Your task to perform on an android device: check the backup settings in the google photos Image 0: 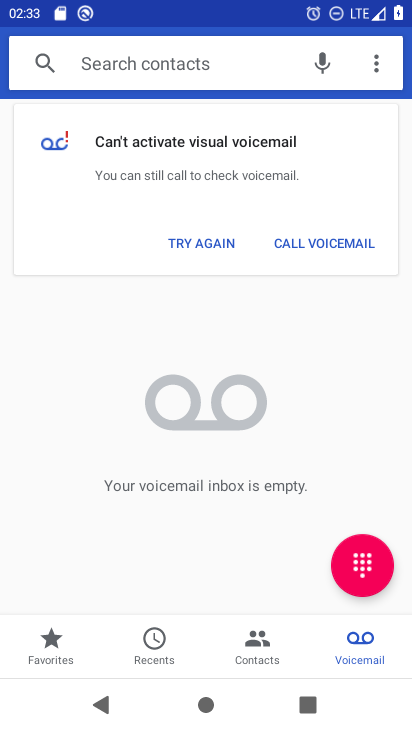
Step 0: press home button
Your task to perform on an android device: check the backup settings in the google photos Image 1: 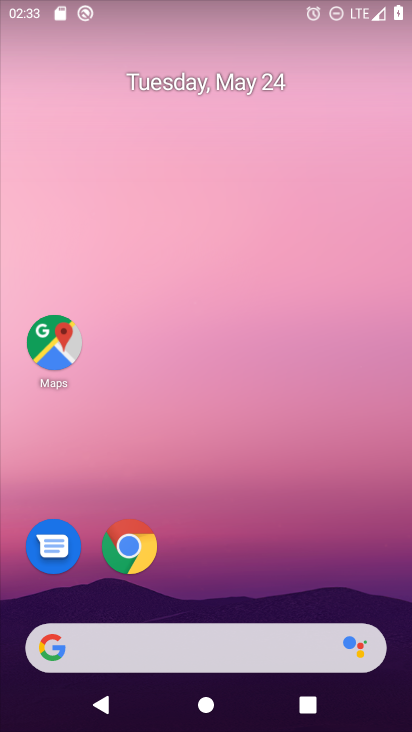
Step 1: drag from (225, 635) to (297, 56)
Your task to perform on an android device: check the backup settings in the google photos Image 2: 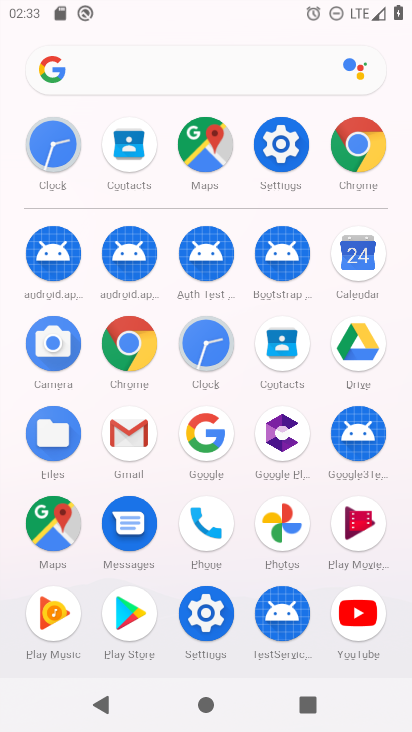
Step 2: click (286, 530)
Your task to perform on an android device: check the backup settings in the google photos Image 3: 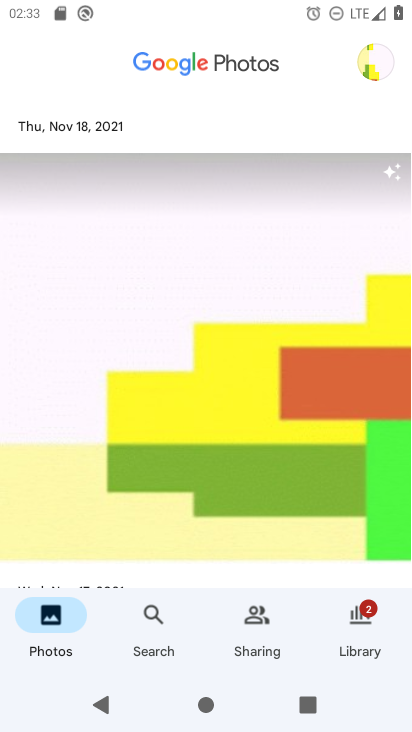
Step 3: click (384, 61)
Your task to perform on an android device: check the backup settings in the google photos Image 4: 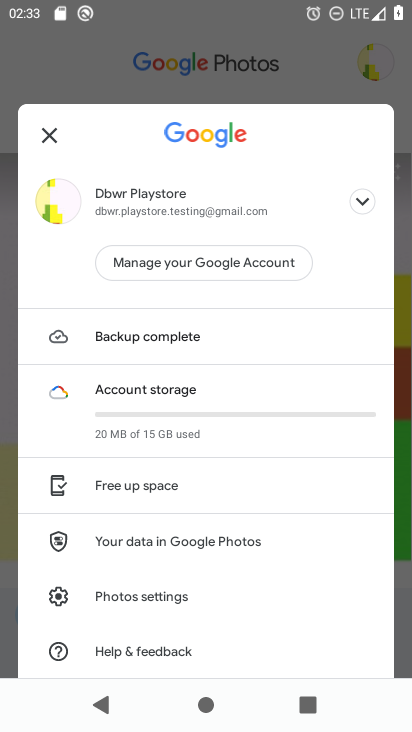
Step 4: click (167, 600)
Your task to perform on an android device: check the backup settings in the google photos Image 5: 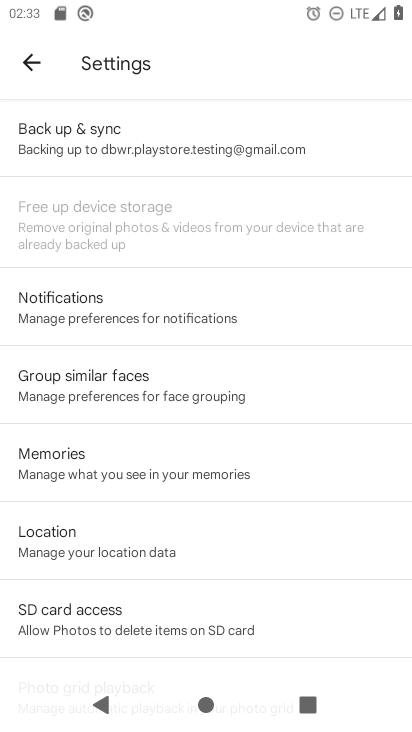
Step 5: click (188, 154)
Your task to perform on an android device: check the backup settings in the google photos Image 6: 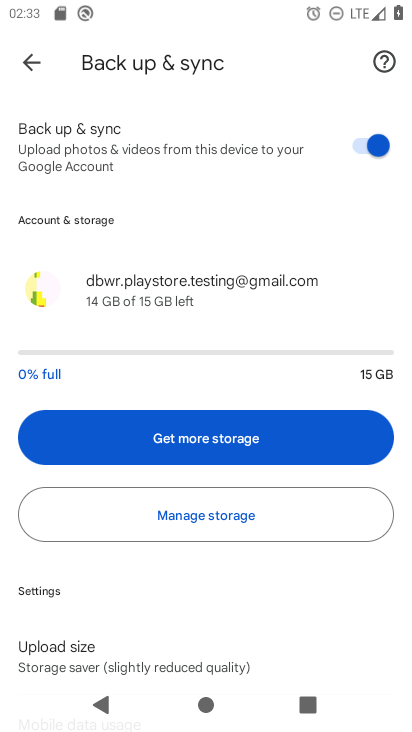
Step 6: task complete